Your task to perform on an android device: Go to Google Image 0: 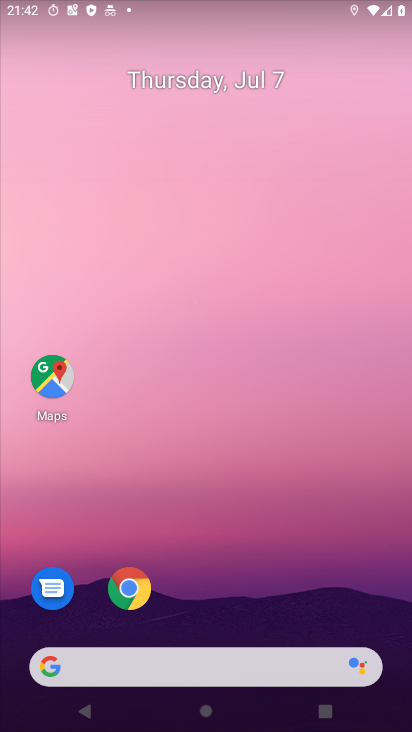
Step 0: click (385, 567)
Your task to perform on an android device: Go to Google Image 1: 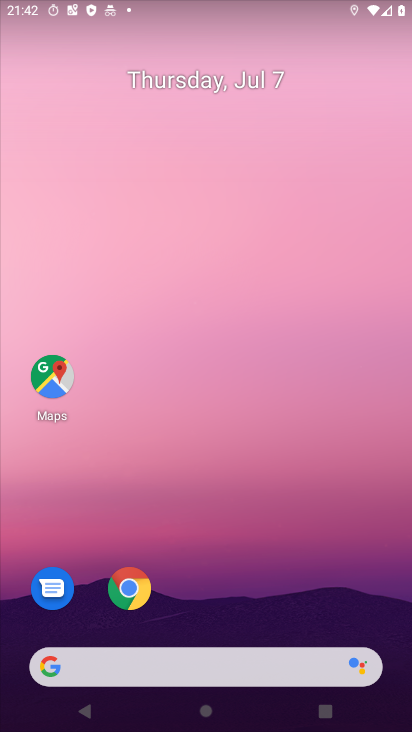
Step 1: drag from (254, 681) to (263, 244)
Your task to perform on an android device: Go to Google Image 2: 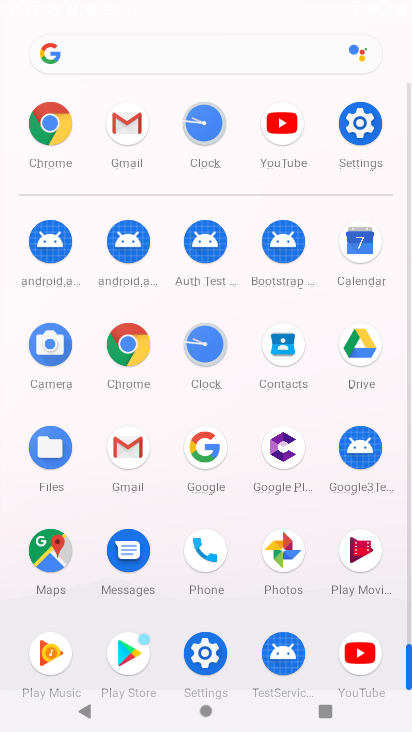
Step 2: click (191, 442)
Your task to perform on an android device: Go to Google Image 3: 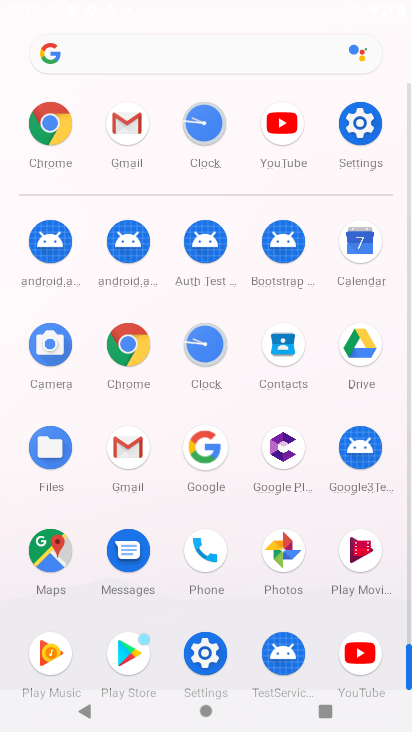
Step 3: click (203, 448)
Your task to perform on an android device: Go to Google Image 4: 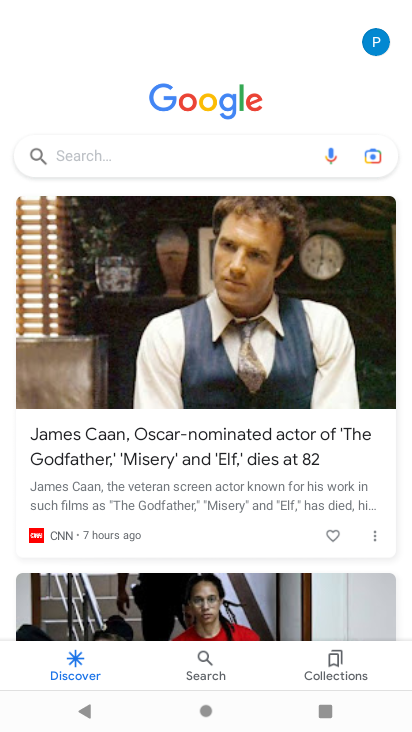
Step 4: task complete